Your task to perform on an android device: Open my contact list Image 0: 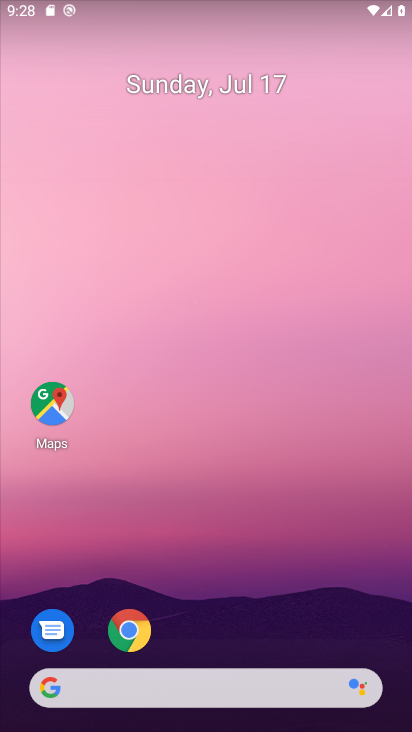
Step 0: drag from (324, 662) to (316, 477)
Your task to perform on an android device: Open my contact list Image 1: 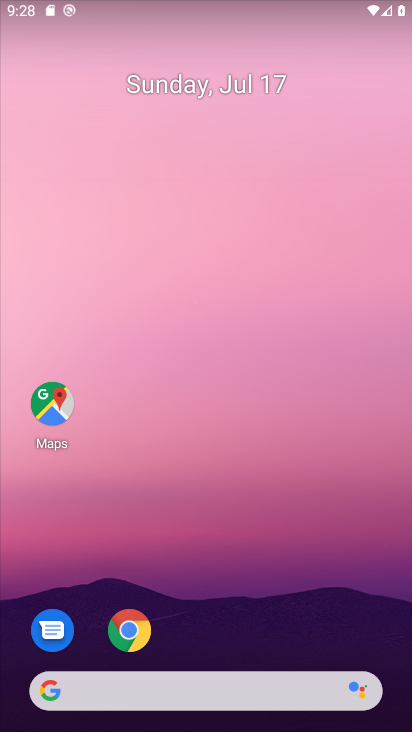
Step 1: drag from (232, 644) to (250, 278)
Your task to perform on an android device: Open my contact list Image 2: 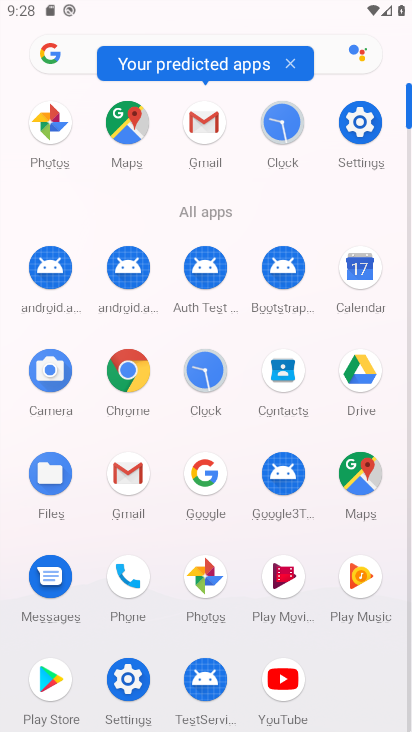
Step 2: click (275, 372)
Your task to perform on an android device: Open my contact list Image 3: 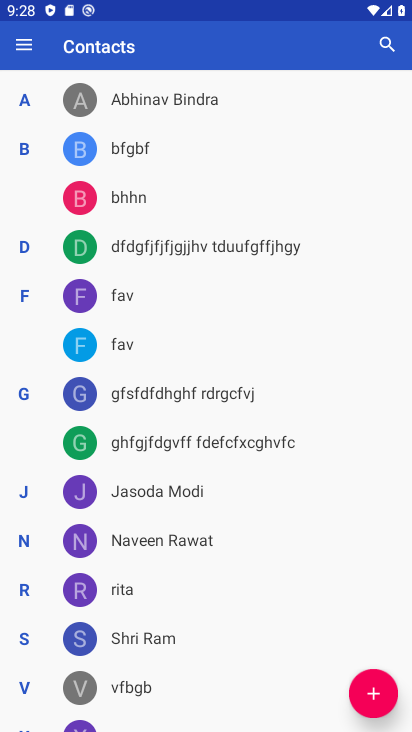
Step 3: task complete